Your task to perform on an android device: Go to Google maps Image 0: 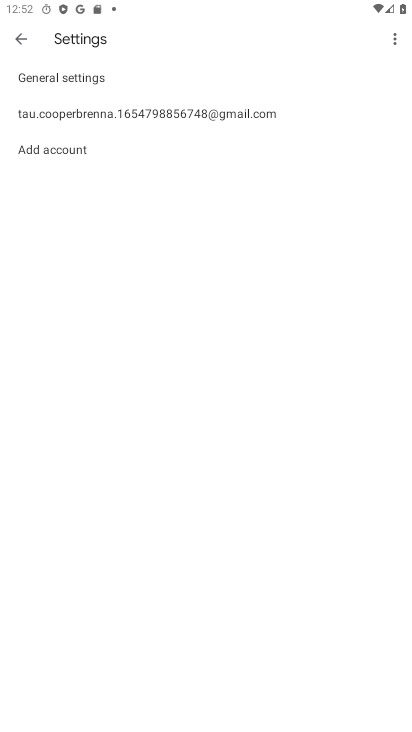
Step 0: drag from (252, 681) to (316, 232)
Your task to perform on an android device: Go to Google maps Image 1: 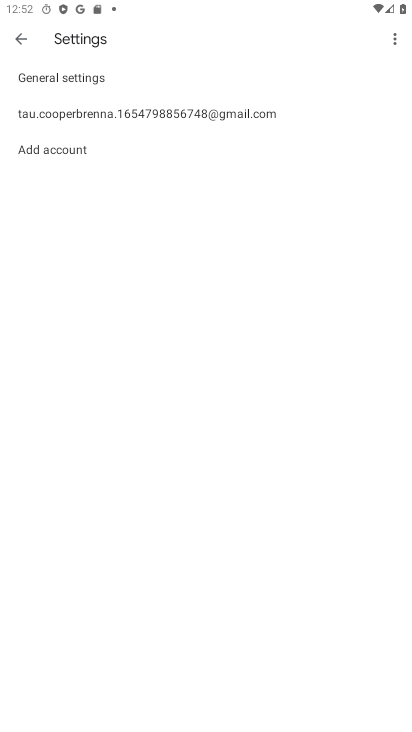
Step 1: drag from (255, 539) to (324, 287)
Your task to perform on an android device: Go to Google maps Image 2: 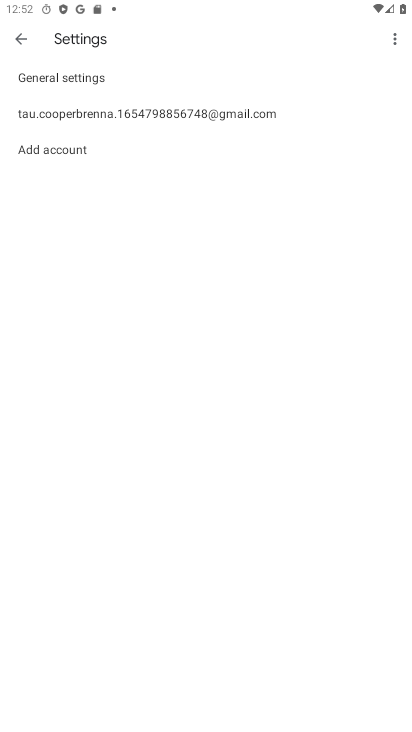
Step 2: press home button
Your task to perform on an android device: Go to Google maps Image 3: 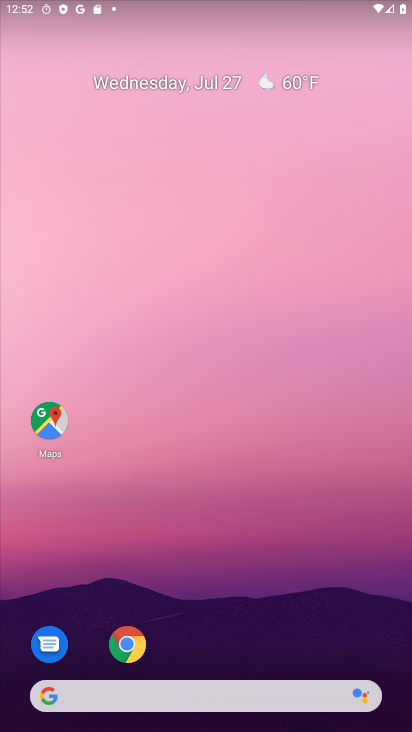
Step 3: drag from (211, 650) to (245, 126)
Your task to perform on an android device: Go to Google maps Image 4: 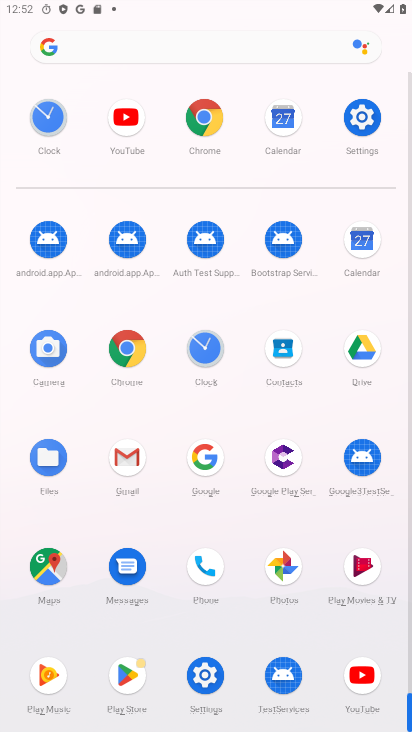
Step 4: click (58, 568)
Your task to perform on an android device: Go to Google maps Image 5: 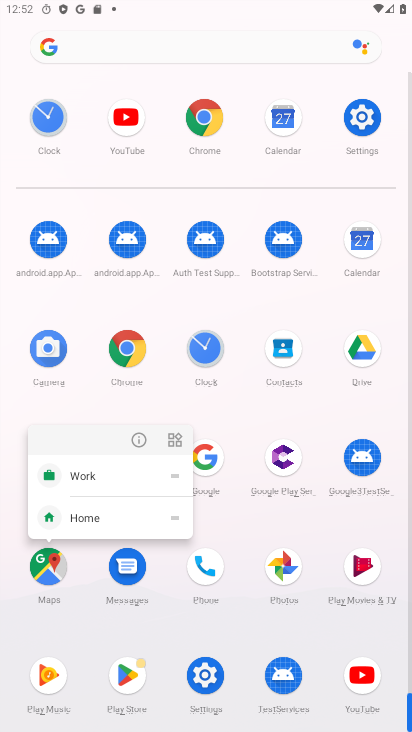
Step 5: click (136, 444)
Your task to perform on an android device: Go to Google maps Image 6: 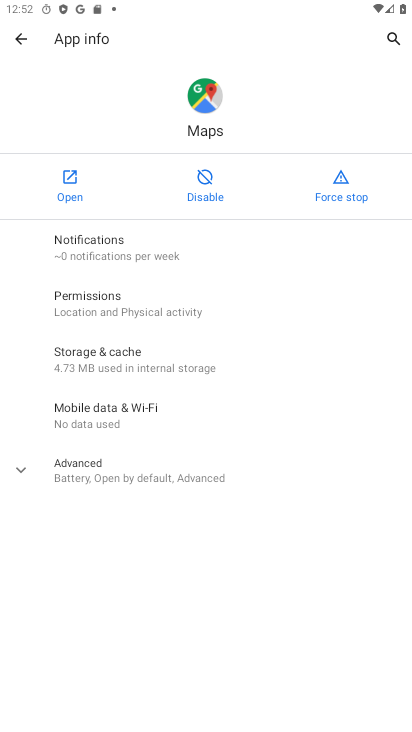
Step 6: click (66, 163)
Your task to perform on an android device: Go to Google maps Image 7: 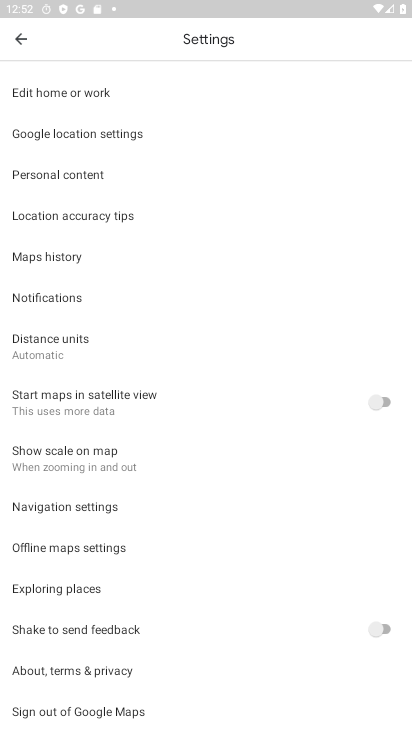
Step 7: click (16, 39)
Your task to perform on an android device: Go to Google maps Image 8: 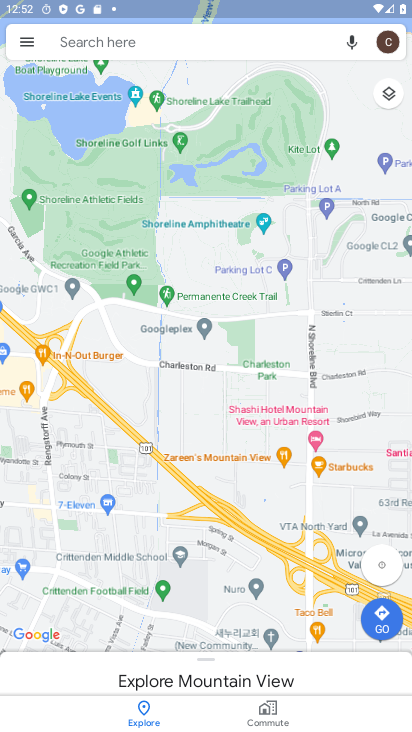
Step 8: task complete